Your task to perform on an android device: turn on translation in the chrome app Image 0: 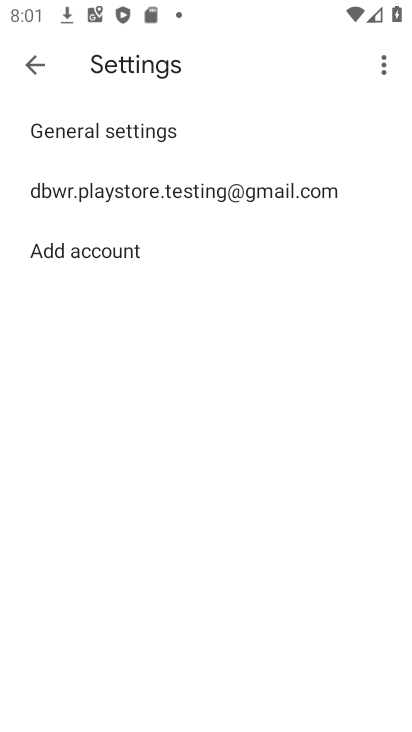
Step 0: press home button
Your task to perform on an android device: turn on translation in the chrome app Image 1: 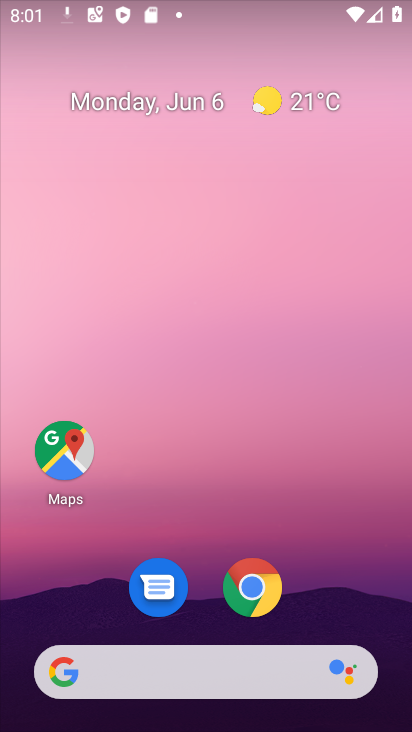
Step 1: click (258, 584)
Your task to perform on an android device: turn on translation in the chrome app Image 2: 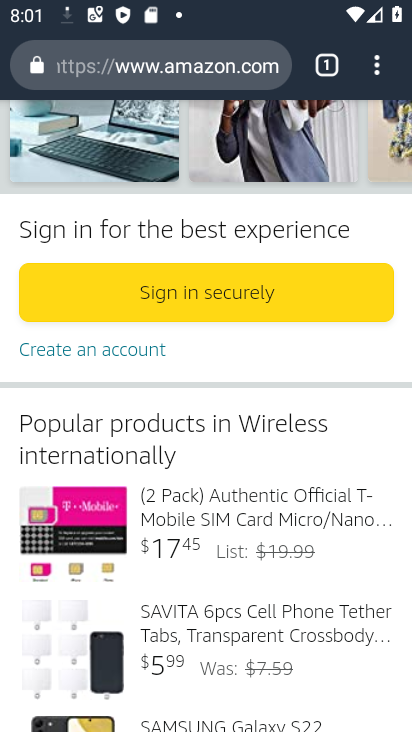
Step 2: click (384, 68)
Your task to perform on an android device: turn on translation in the chrome app Image 3: 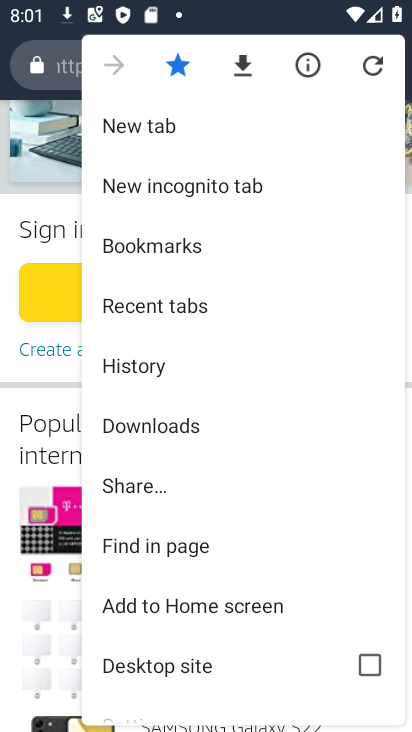
Step 3: drag from (227, 693) to (278, 59)
Your task to perform on an android device: turn on translation in the chrome app Image 4: 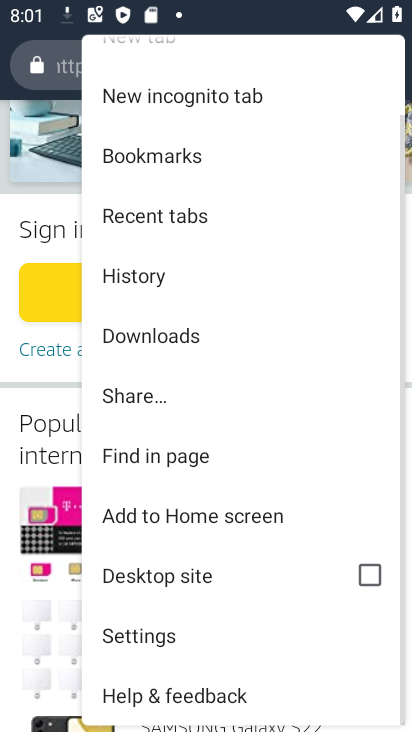
Step 4: click (169, 635)
Your task to perform on an android device: turn on translation in the chrome app Image 5: 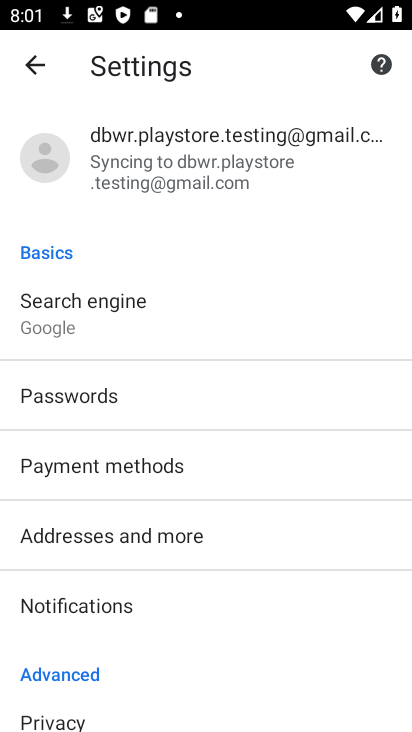
Step 5: drag from (180, 691) to (255, 101)
Your task to perform on an android device: turn on translation in the chrome app Image 6: 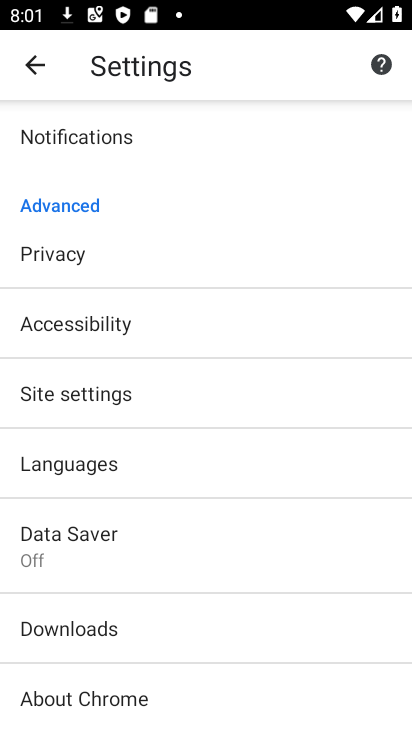
Step 6: drag from (156, 669) to (274, 244)
Your task to perform on an android device: turn on translation in the chrome app Image 7: 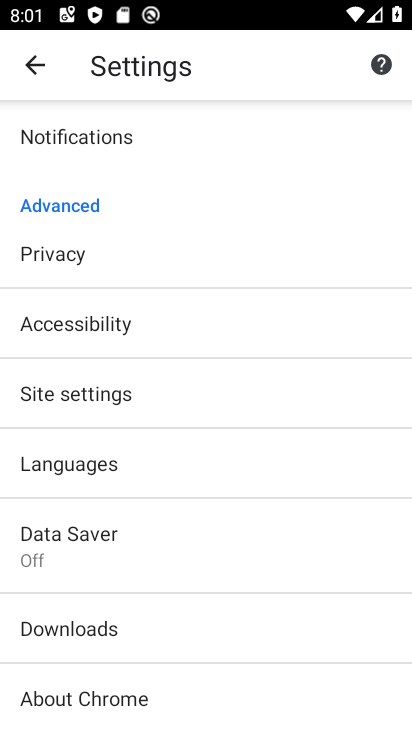
Step 7: click (53, 473)
Your task to perform on an android device: turn on translation in the chrome app Image 8: 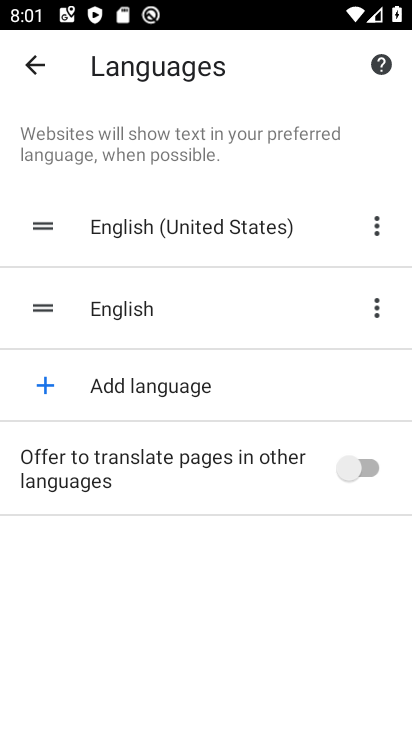
Step 8: click (368, 466)
Your task to perform on an android device: turn on translation in the chrome app Image 9: 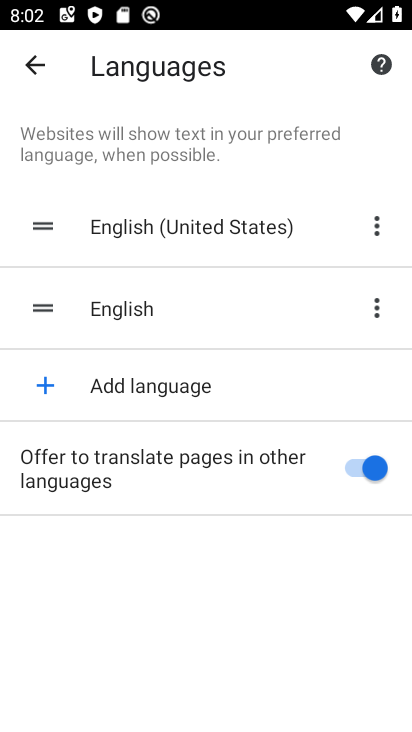
Step 9: task complete